Your task to perform on an android device: Open the calendar app, open the side menu, and click the "Day" option Image 0: 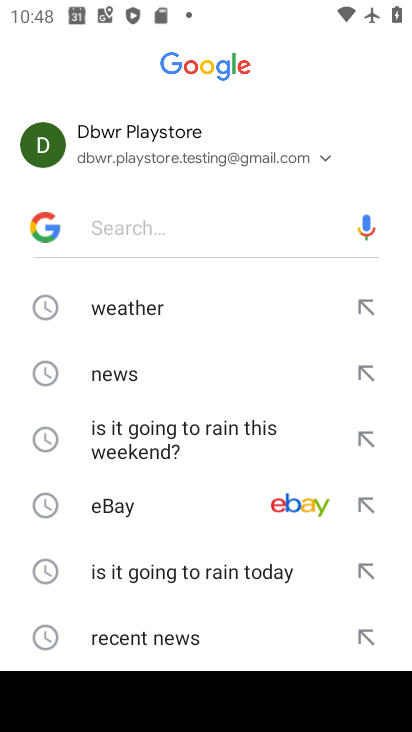
Step 0: press home button
Your task to perform on an android device: Open the calendar app, open the side menu, and click the "Day" option Image 1: 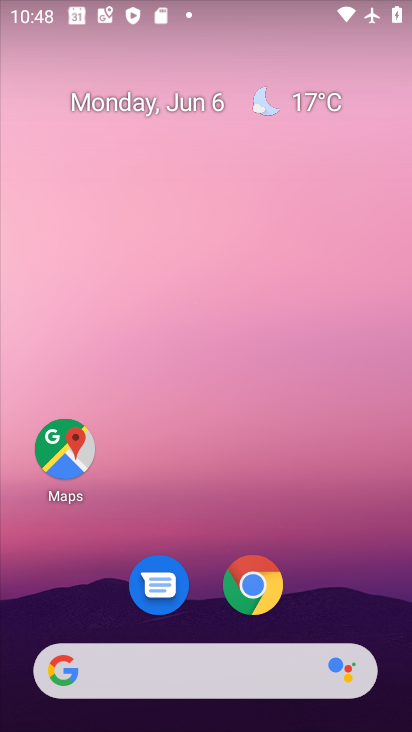
Step 1: drag from (211, 488) to (271, 0)
Your task to perform on an android device: Open the calendar app, open the side menu, and click the "Day" option Image 2: 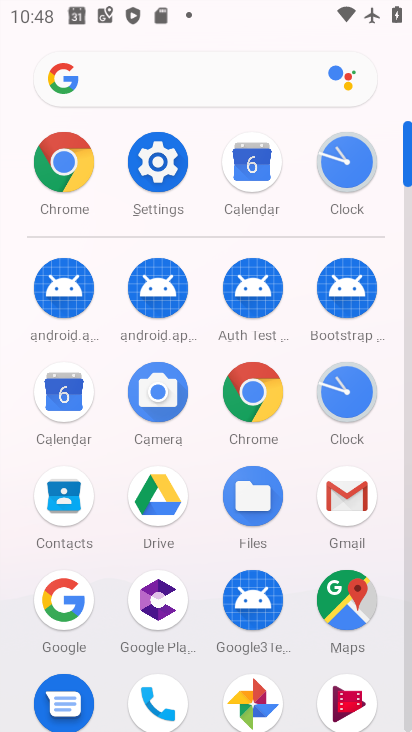
Step 2: click (251, 159)
Your task to perform on an android device: Open the calendar app, open the side menu, and click the "Day" option Image 3: 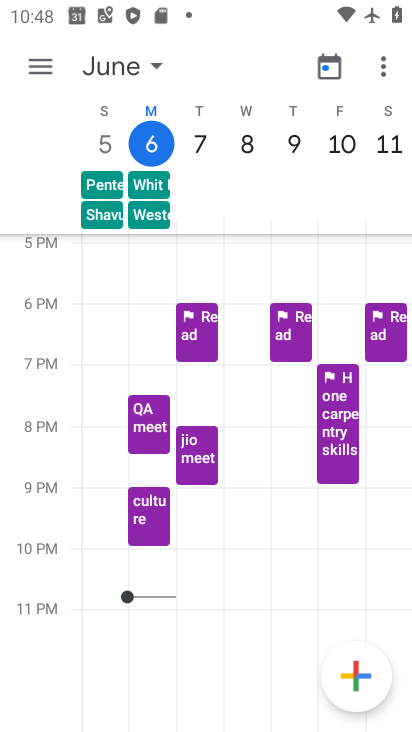
Step 3: click (142, 134)
Your task to perform on an android device: Open the calendar app, open the side menu, and click the "Day" option Image 4: 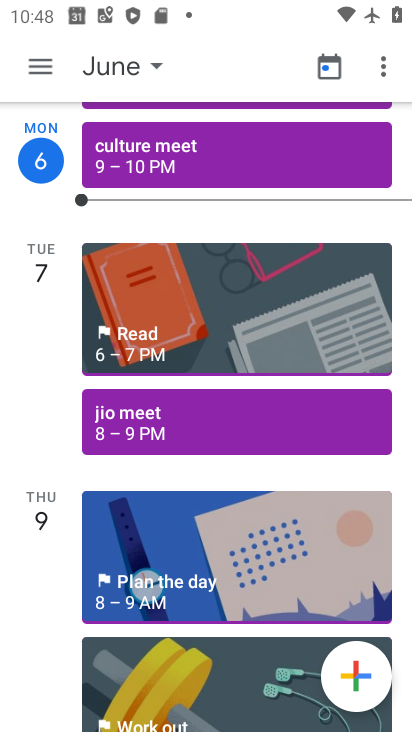
Step 4: click (46, 60)
Your task to perform on an android device: Open the calendar app, open the side menu, and click the "Day" option Image 5: 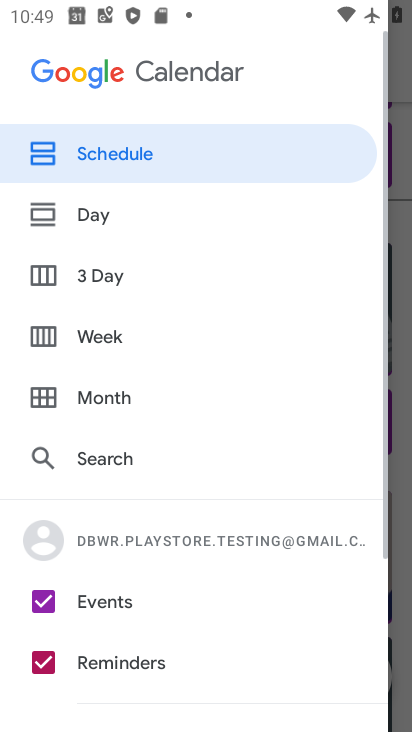
Step 5: click (78, 202)
Your task to perform on an android device: Open the calendar app, open the side menu, and click the "Day" option Image 6: 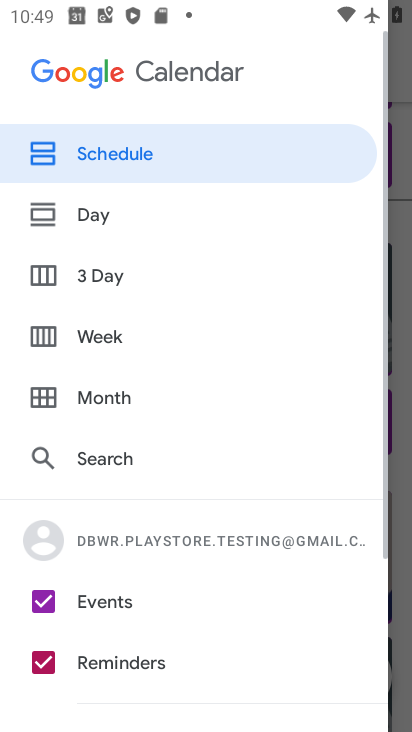
Step 6: click (44, 217)
Your task to perform on an android device: Open the calendar app, open the side menu, and click the "Day" option Image 7: 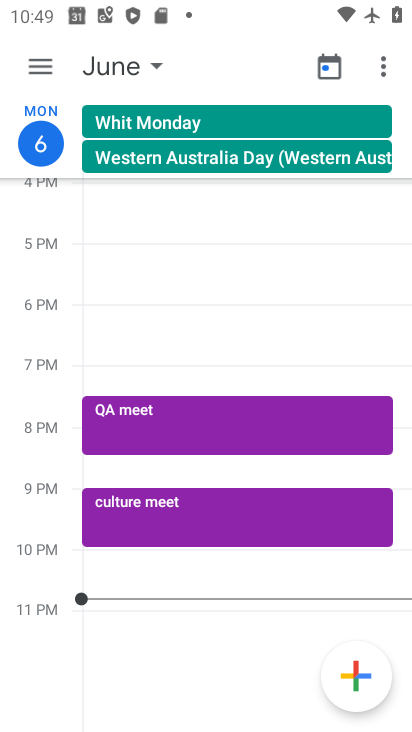
Step 7: task complete